Your task to perform on an android device: Open ESPN.com Image 0: 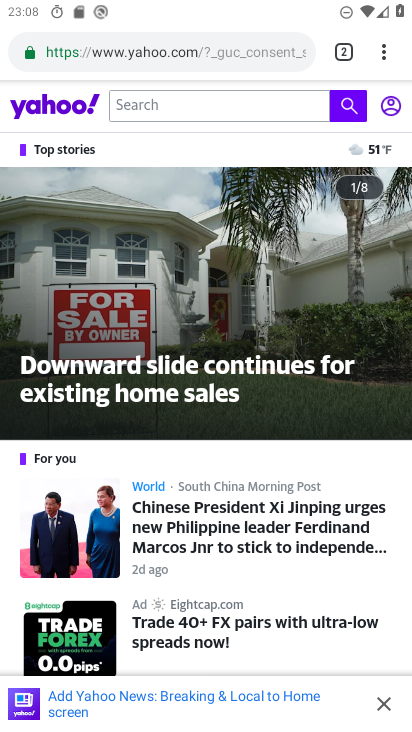
Step 0: press back button
Your task to perform on an android device: Open ESPN.com Image 1: 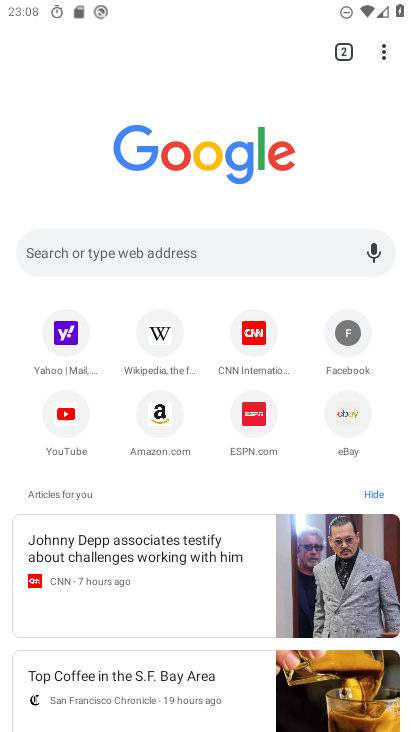
Step 1: click (150, 254)
Your task to perform on an android device: Open ESPN.com Image 2: 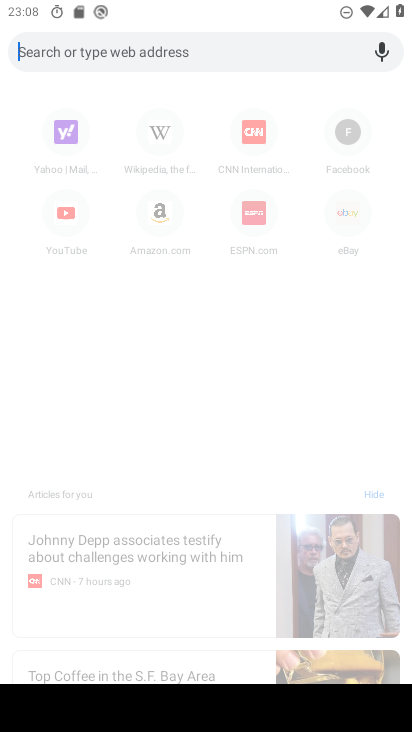
Step 2: type "espn.com"
Your task to perform on an android device: Open ESPN.com Image 3: 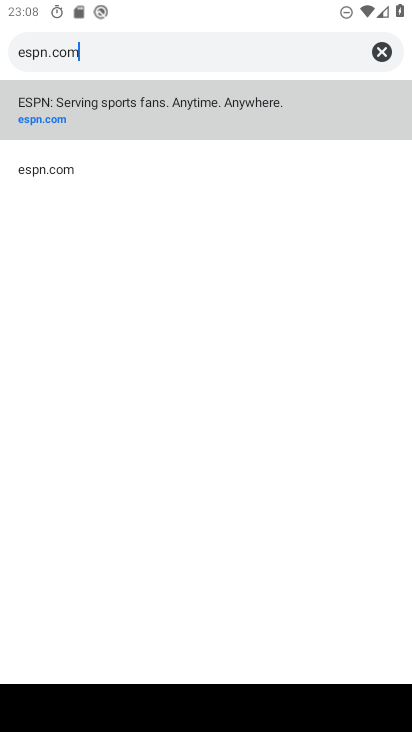
Step 3: click (78, 179)
Your task to perform on an android device: Open ESPN.com Image 4: 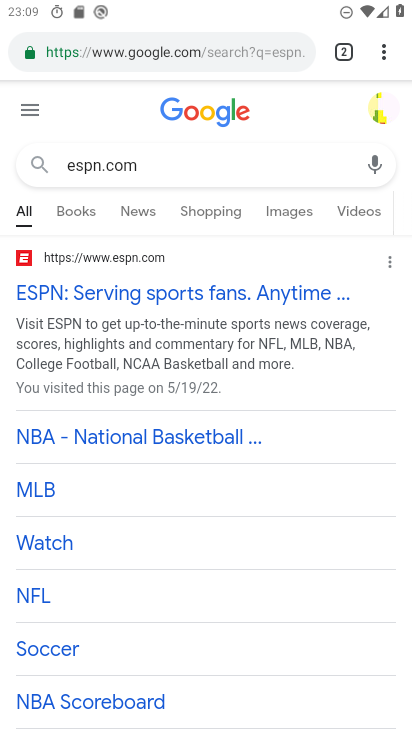
Step 4: task complete